Your task to perform on an android device: remove spam from my inbox in the gmail app Image 0: 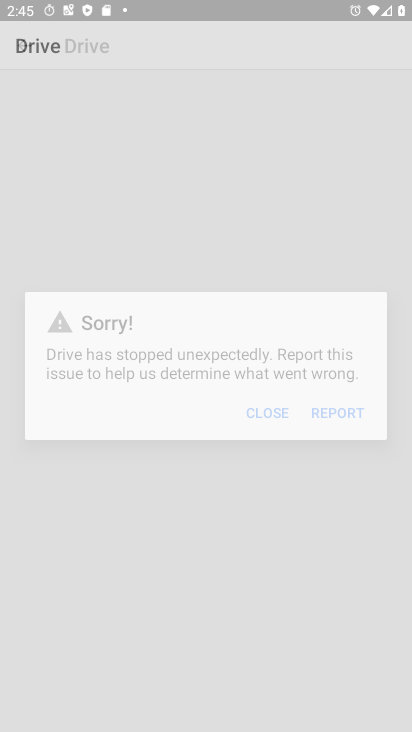
Step 0: drag from (230, 699) to (356, 170)
Your task to perform on an android device: remove spam from my inbox in the gmail app Image 1: 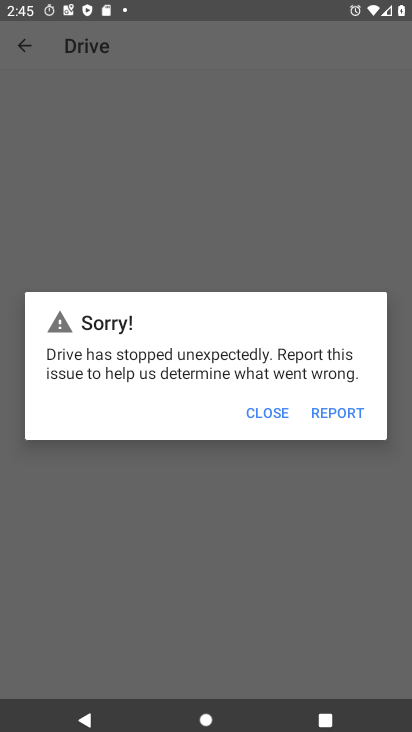
Step 1: press home button
Your task to perform on an android device: remove spam from my inbox in the gmail app Image 2: 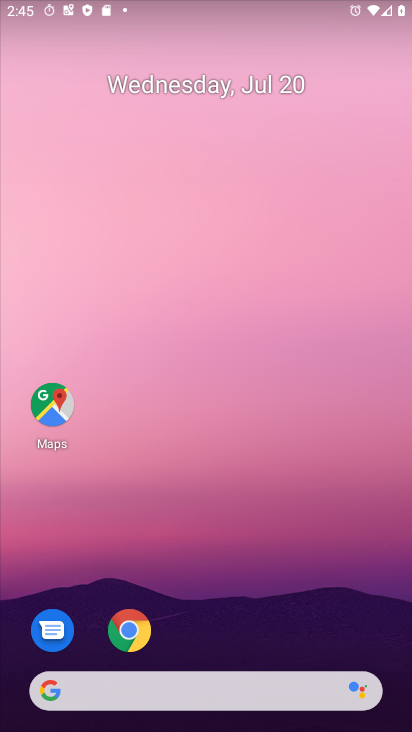
Step 2: drag from (284, 683) to (410, 109)
Your task to perform on an android device: remove spam from my inbox in the gmail app Image 3: 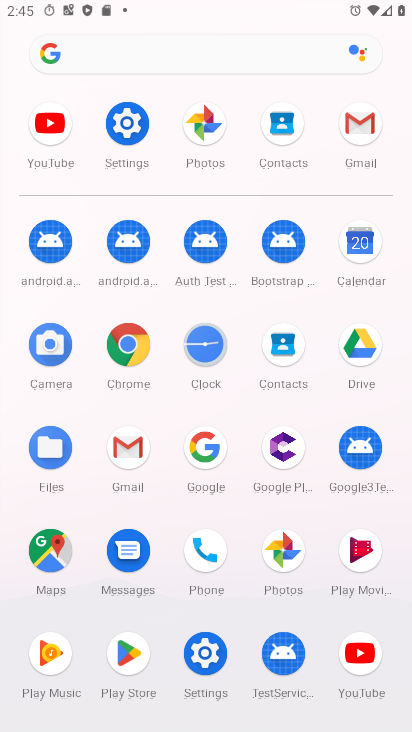
Step 3: click (360, 190)
Your task to perform on an android device: remove spam from my inbox in the gmail app Image 4: 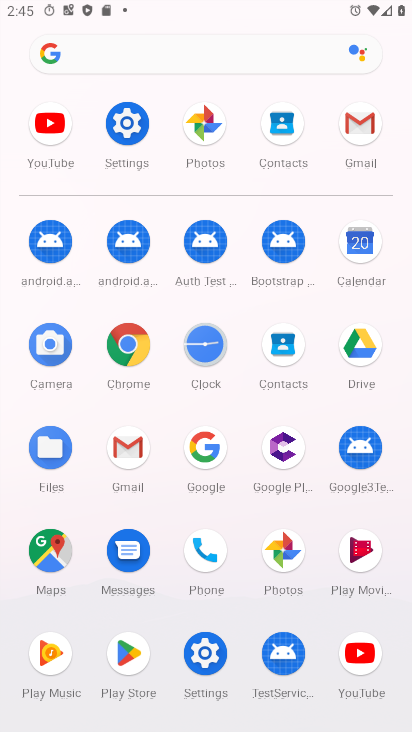
Step 4: click (363, 127)
Your task to perform on an android device: remove spam from my inbox in the gmail app Image 5: 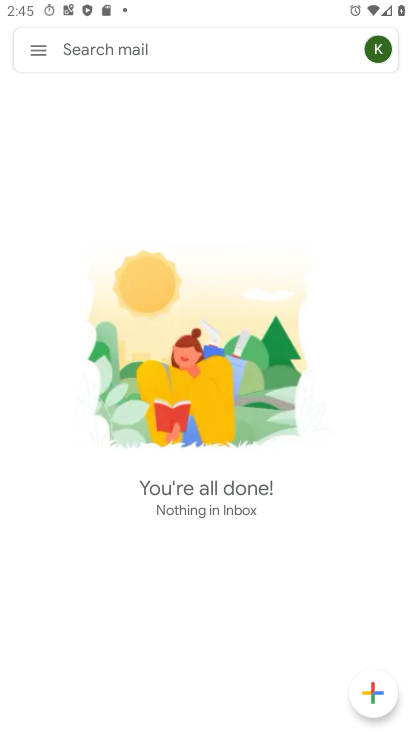
Step 5: click (39, 45)
Your task to perform on an android device: remove spam from my inbox in the gmail app Image 6: 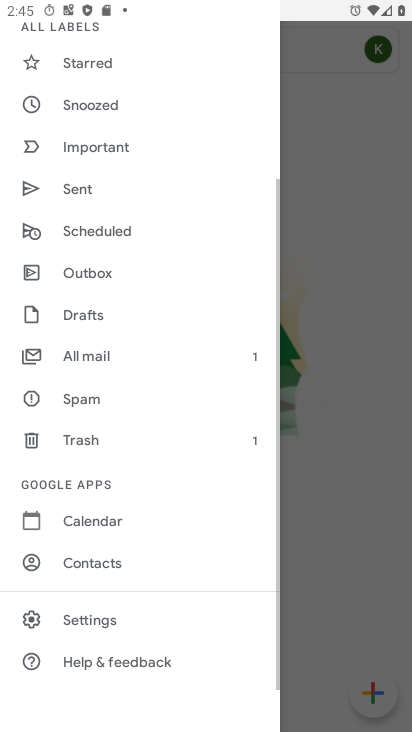
Step 6: click (88, 398)
Your task to perform on an android device: remove spam from my inbox in the gmail app Image 7: 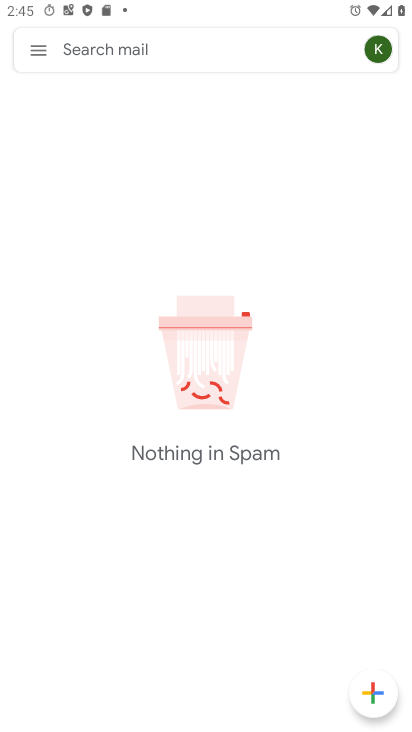
Step 7: task complete